Your task to perform on an android device: Open settings on Google Maps Image 0: 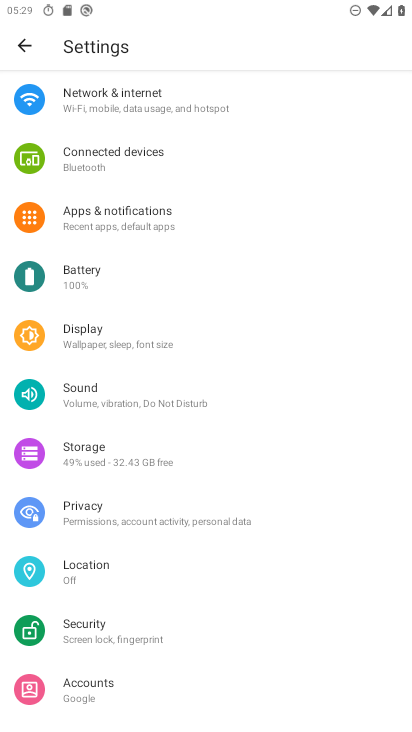
Step 0: press home button
Your task to perform on an android device: Open settings on Google Maps Image 1: 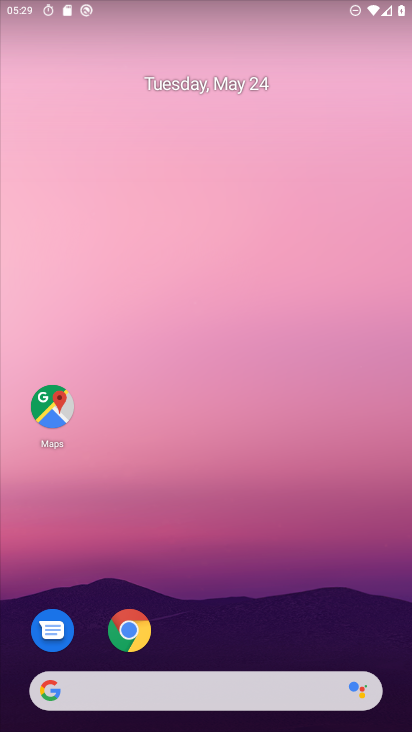
Step 1: click (122, 638)
Your task to perform on an android device: Open settings on Google Maps Image 2: 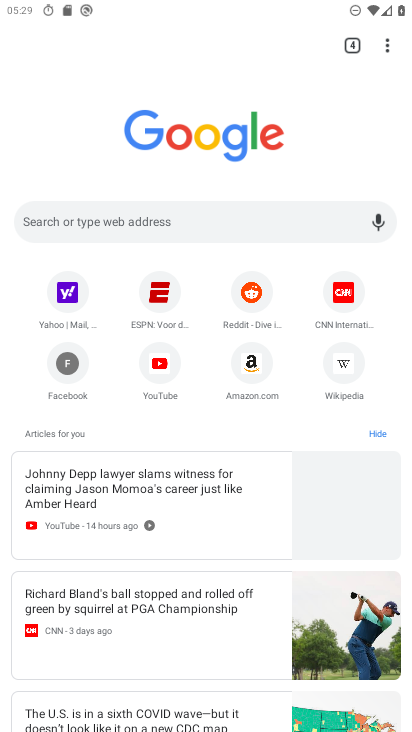
Step 2: press home button
Your task to perform on an android device: Open settings on Google Maps Image 3: 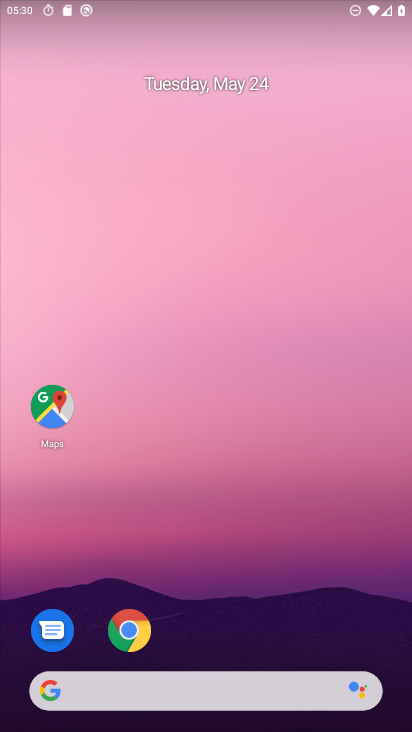
Step 3: click (59, 406)
Your task to perform on an android device: Open settings on Google Maps Image 4: 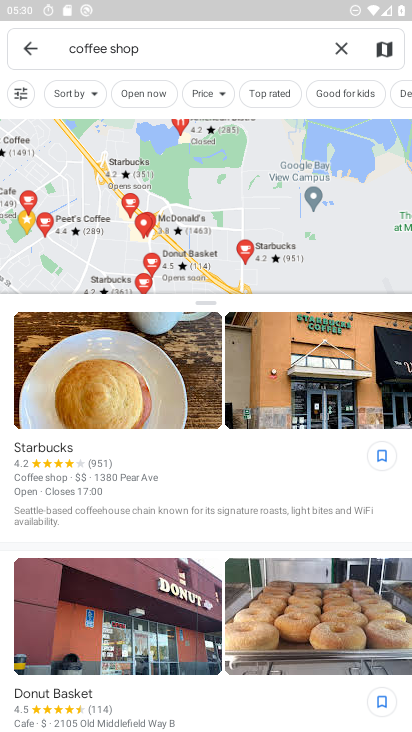
Step 4: task complete